Your task to perform on an android device: Open Google Chrome and click the shortcut for Amazon.com Image 0: 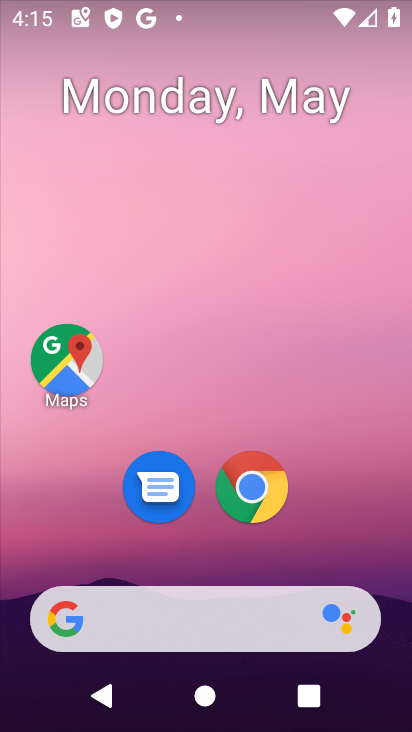
Step 0: click (264, 489)
Your task to perform on an android device: Open Google Chrome and click the shortcut for Amazon.com Image 1: 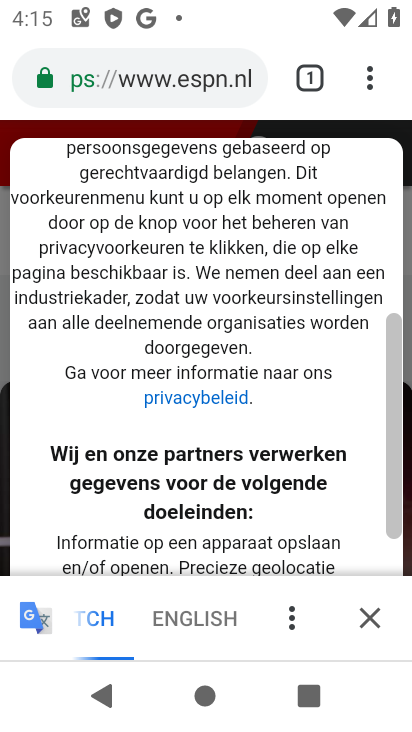
Step 1: click (369, 79)
Your task to perform on an android device: Open Google Chrome and click the shortcut for Amazon.com Image 2: 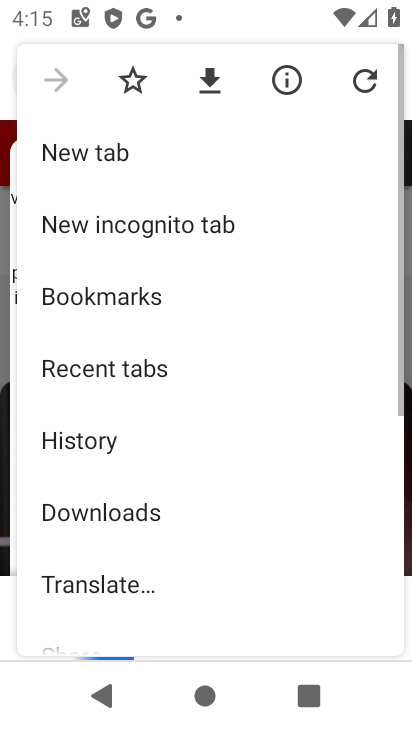
Step 2: click (108, 153)
Your task to perform on an android device: Open Google Chrome and click the shortcut for Amazon.com Image 3: 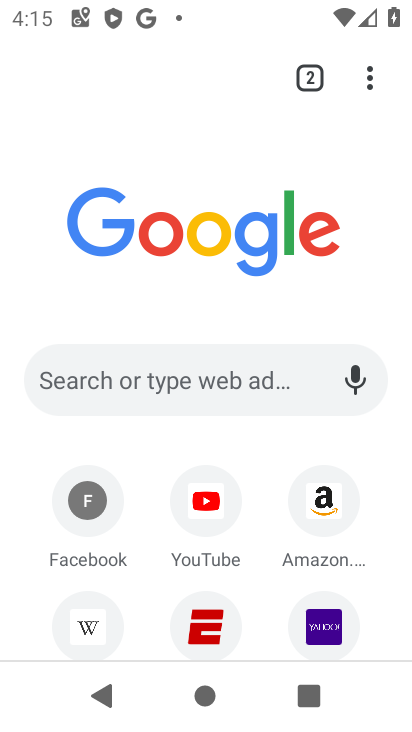
Step 3: click (325, 510)
Your task to perform on an android device: Open Google Chrome and click the shortcut for Amazon.com Image 4: 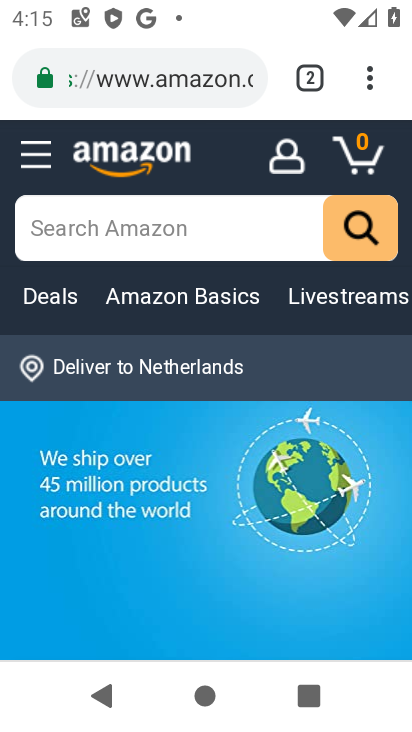
Step 4: task complete